Your task to perform on an android device: Is it going to rain this weekend? Image 0: 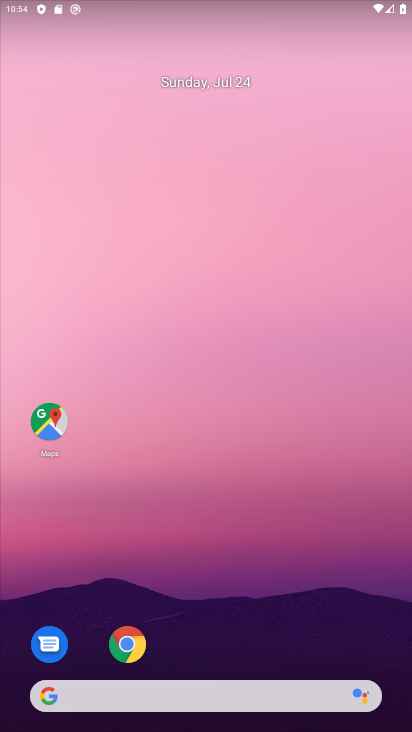
Step 0: type "Is it going to rain this weekend?"
Your task to perform on an android device: Is it going to rain this weekend? Image 1: 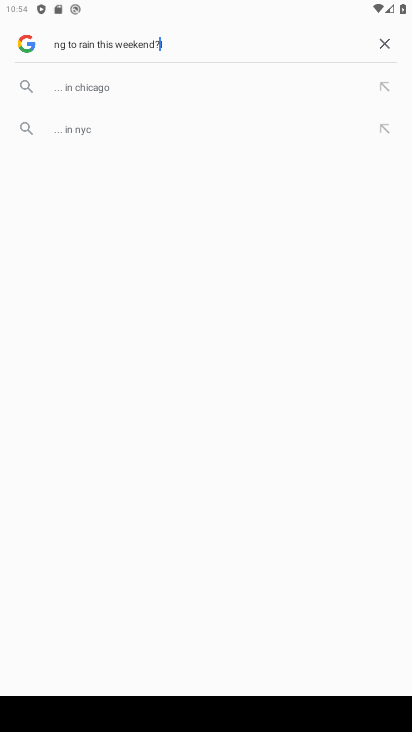
Step 1: click (385, 46)
Your task to perform on an android device: Is it going to rain this weekend? Image 2: 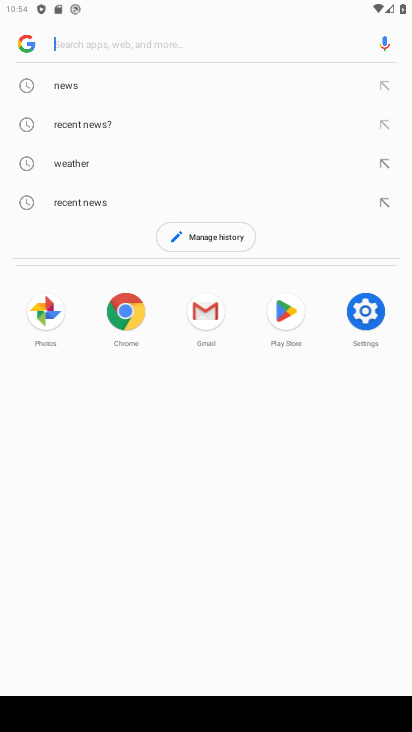
Step 2: type "Is it going to rain this weekend?"
Your task to perform on an android device: Is it going to rain this weekend? Image 3: 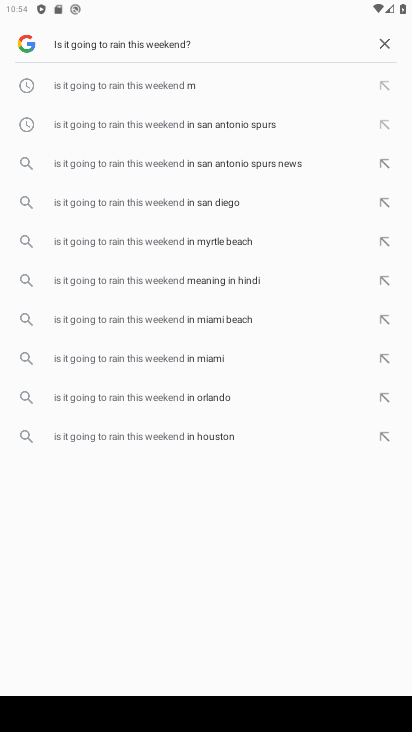
Step 3: click (132, 82)
Your task to perform on an android device: Is it going to rain this weekend? Image 4: 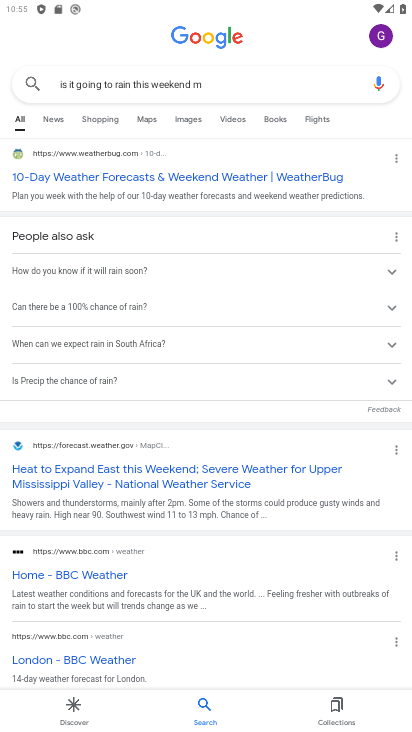
Step 4: click (96, 180)
Your task to perform on an android device: Is it going to rain this weekend? Image 5: 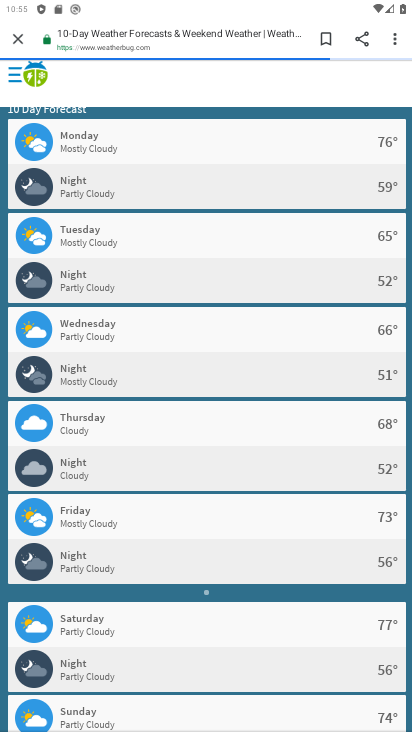
Step 5: task complete